Your task to perform on an android device: open a bookmark in the chrome app Image 0: 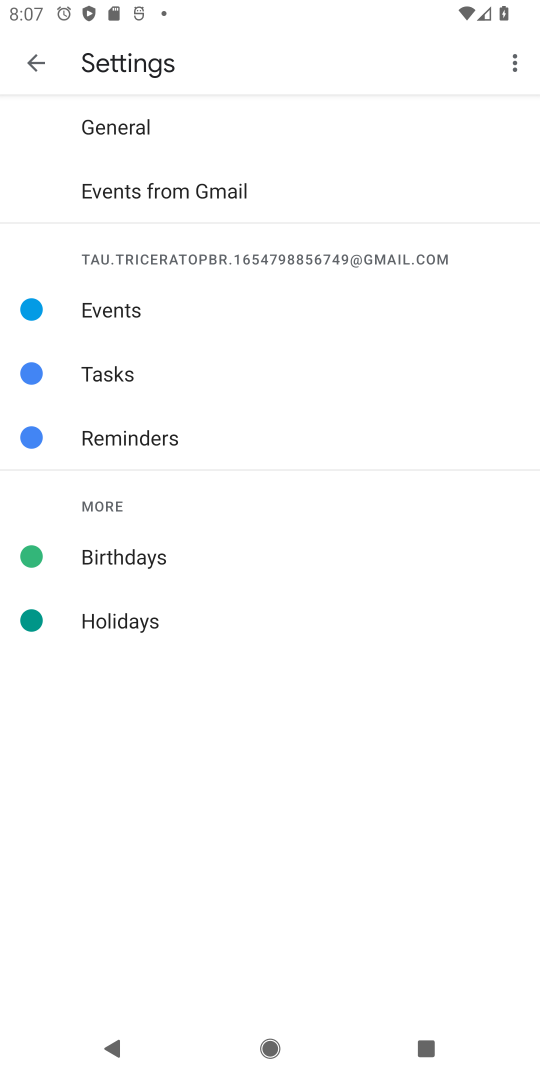
Step 0: press back button
Your task to perform on an android device: open a bookmark in the chrome app Image 1: 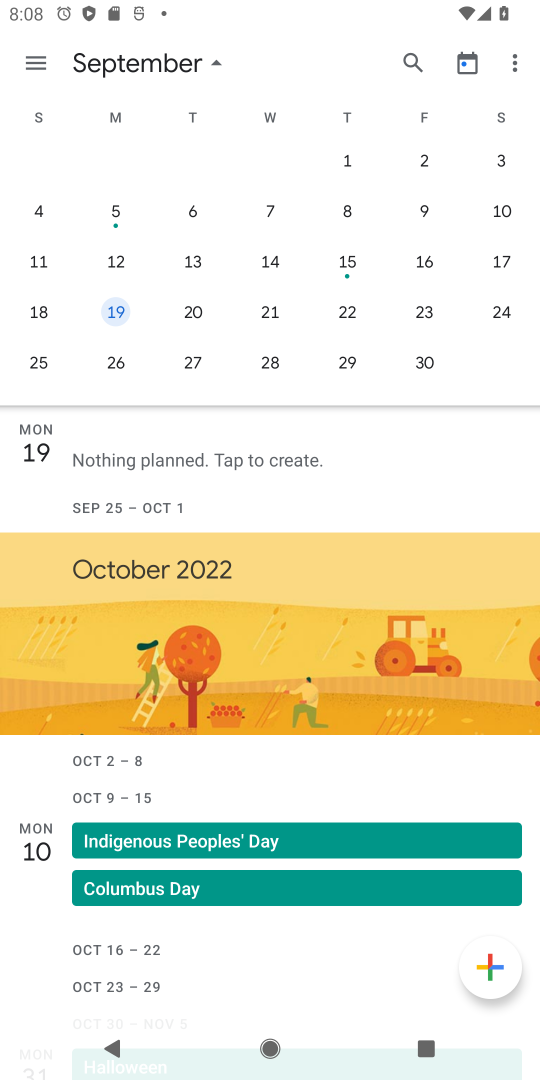
Step 1: press back button
Your task to perform on an android device: open a bookmark in the chrome app Image 2: 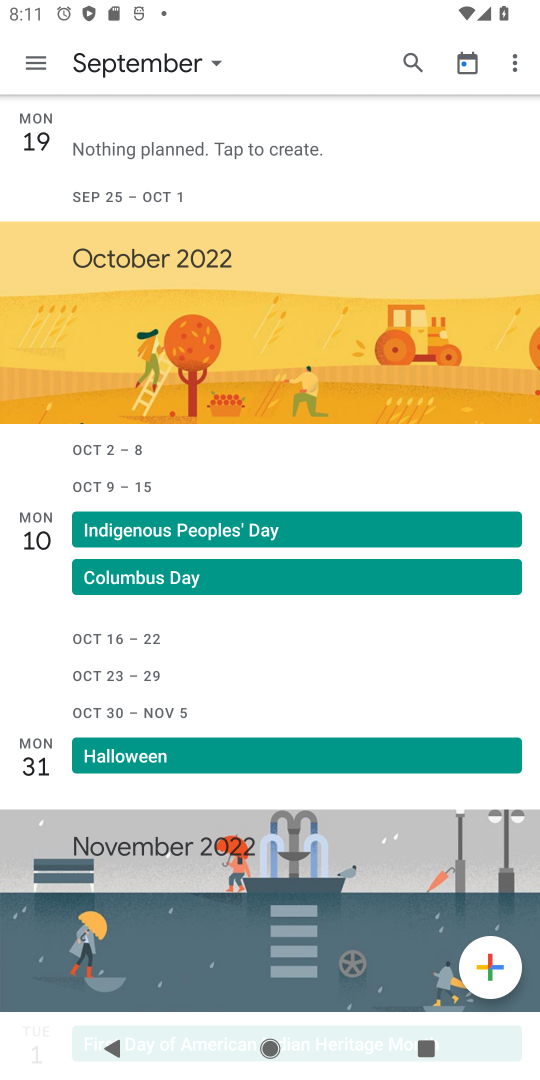
Step 2: press back button
Your task to perform on an android device: open a bookmark in the chrome app Image 3: 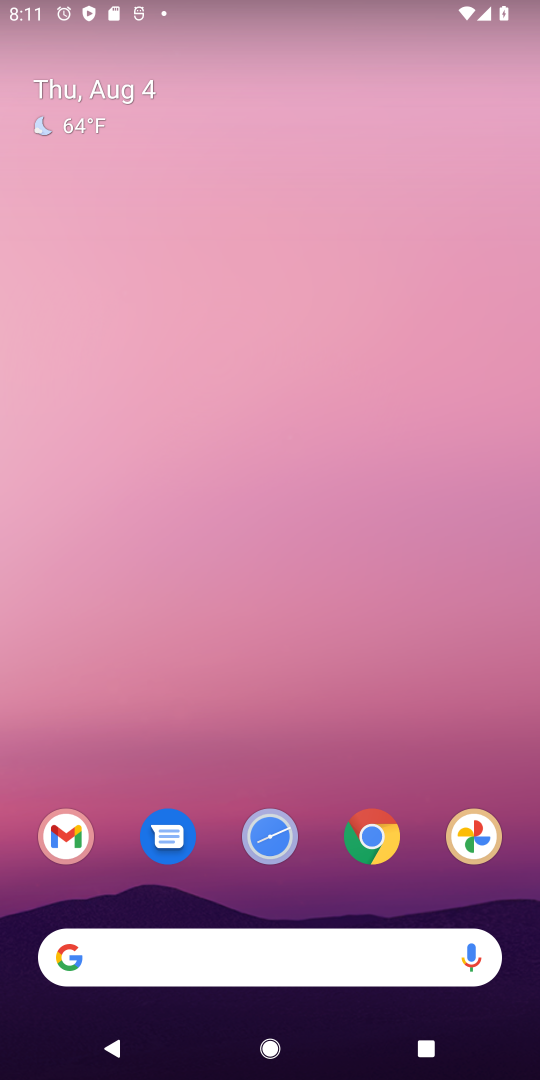
Step 3: click (370, 811)
Your task to perform on an android device: open a bookmark in the chrome app Image 4: 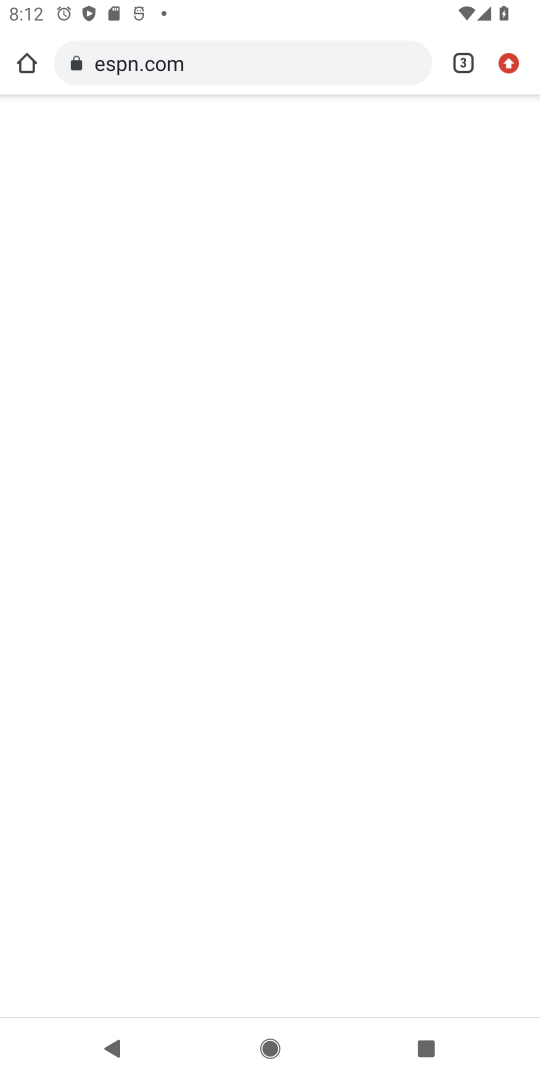
Step 4: drag from (497, 65) to (331, 430)
Your task to perform on an android device: open a bookmark in the chrome app Image 5: 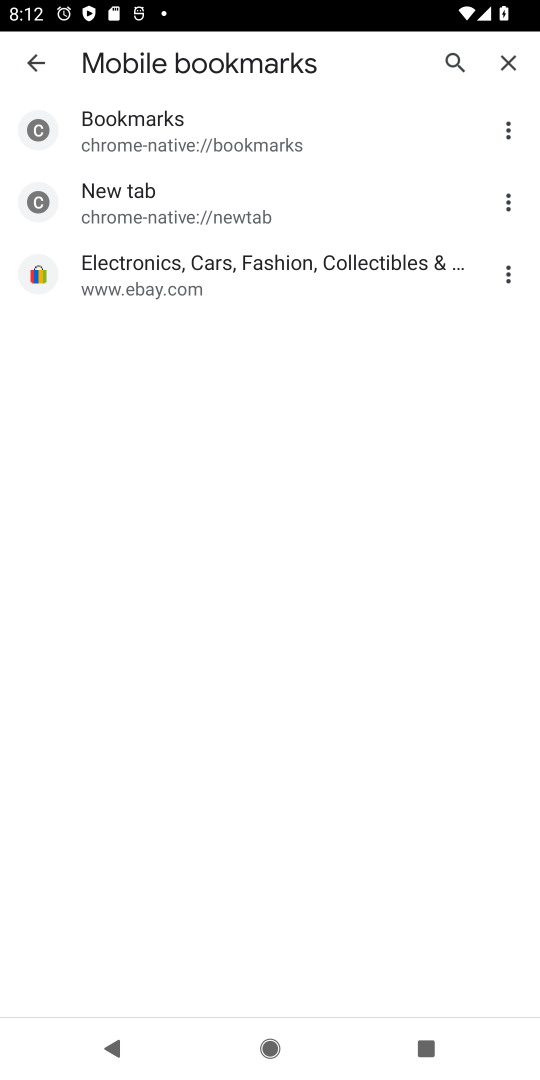
Step 5: click (187, 254)
Your task to perform on an android device: open a bookmark in the chrome app Image 6: 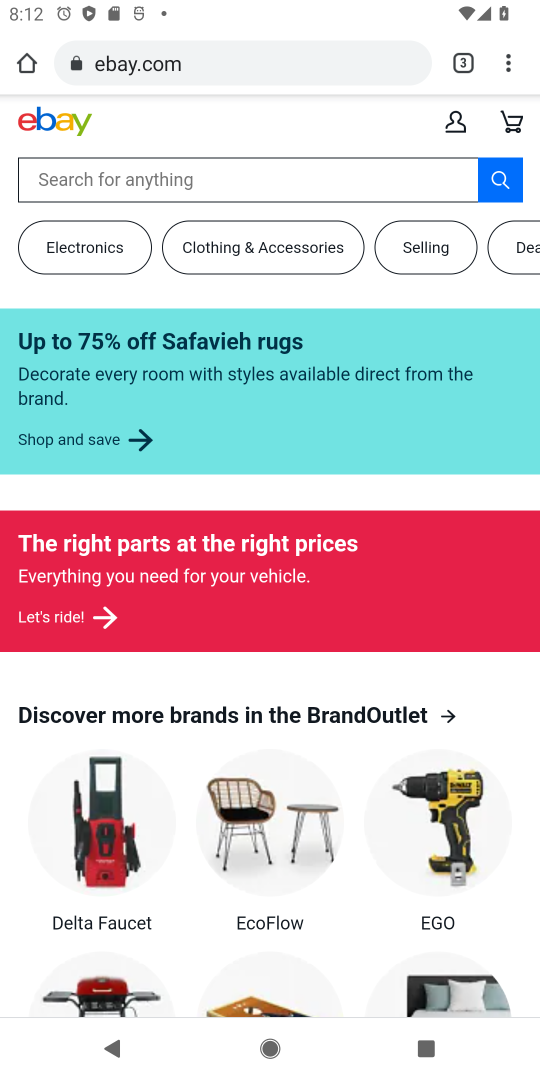
Step 6: task complete